Your task to perform on an android device: Open privacy settings Image 0: 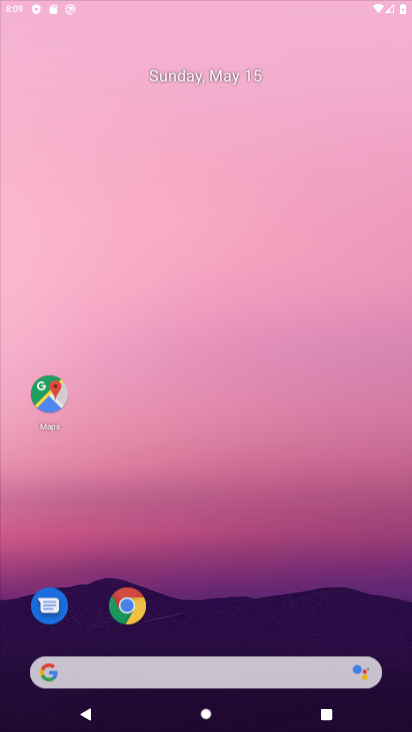
Step 0: drag from (258, 555) to (309, 78)
Your task to perform on an android device: Open privacy settings Image 1: 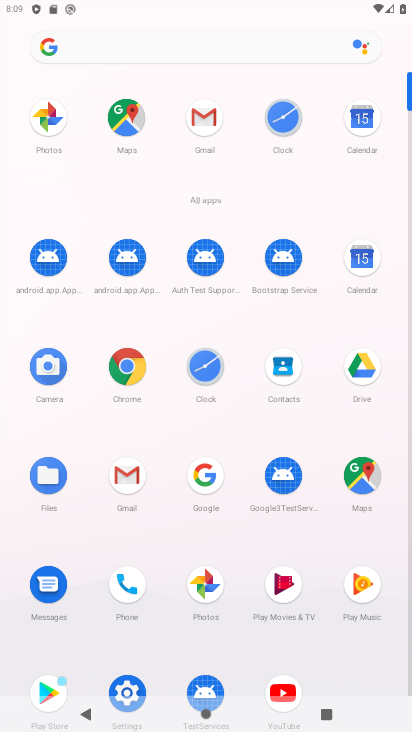
Step 1: click (117, 686)
Your task to perform on an android device: Open privacy settings Image 2: 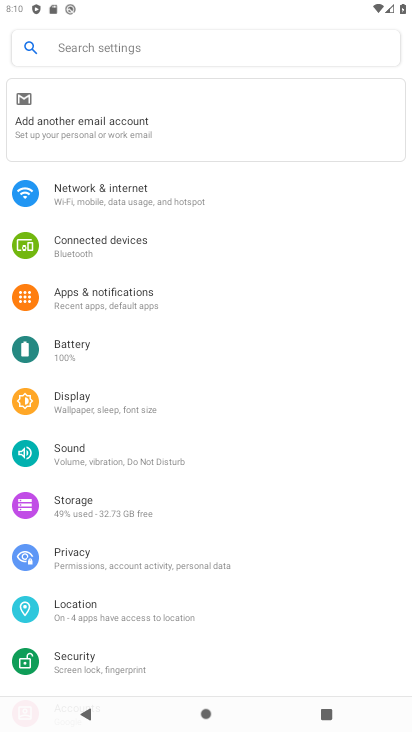
Step 2: click (92, 508)
Your task to perform on an android device: Open privacy settings Image 3: 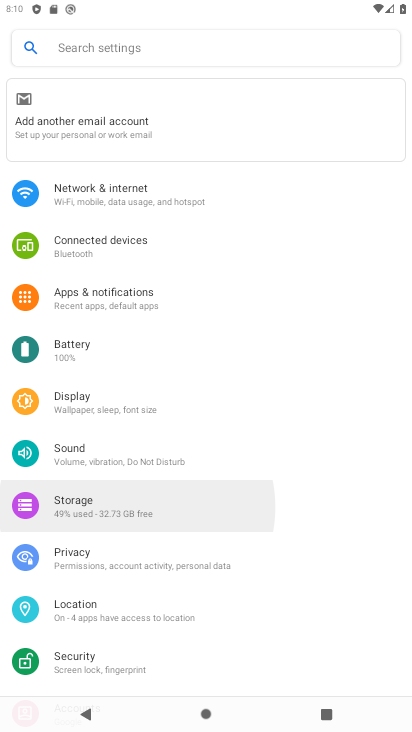
Step 3: drag from (92, 508) to (141, 283)
Your task to perform on an android device: Open privacy settings Image 4: 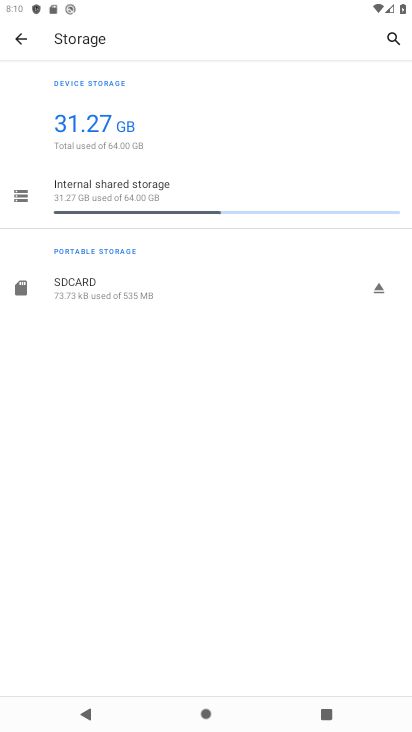
Step 4: click (29, 40)
Your task to perform on an android device: Open privacy settings Image 5: 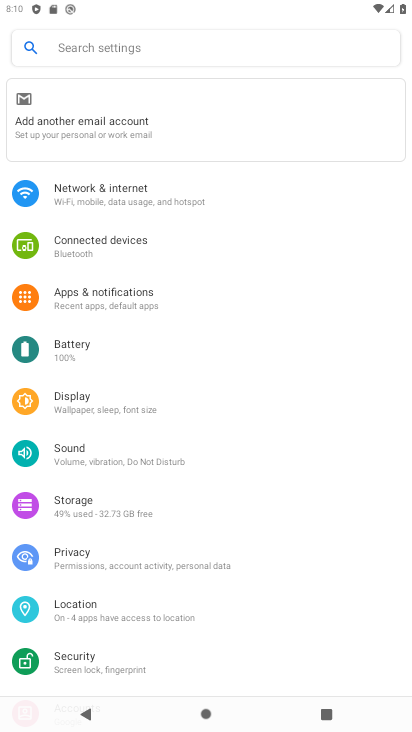
Step 5: click (76, 558)
Your task to perform on an android device: Open privacy settings Image 6: 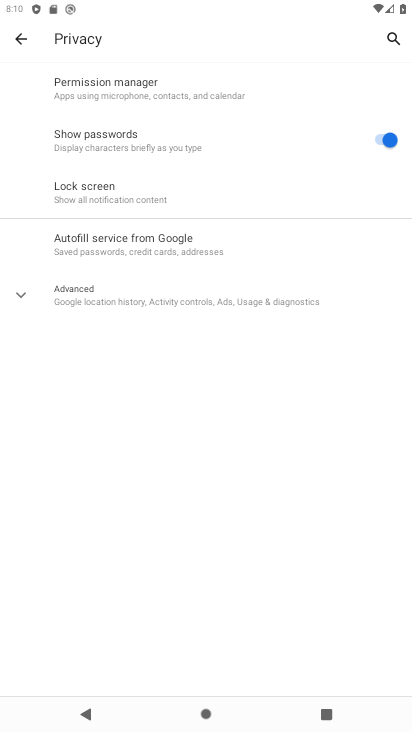
Step 6: task complete